Your task to perform on an android device: Search for vegetarian restaurants on Maps Image 0: 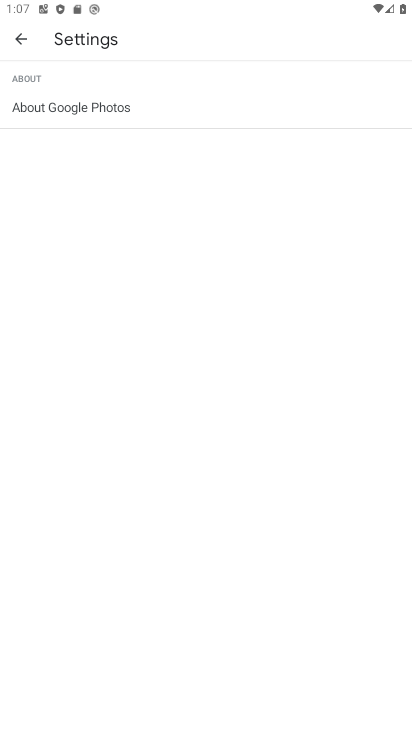
Step 0: press home button
Your task to perform on an android device: Search for vegetarian restaurants on Maps Image 1: 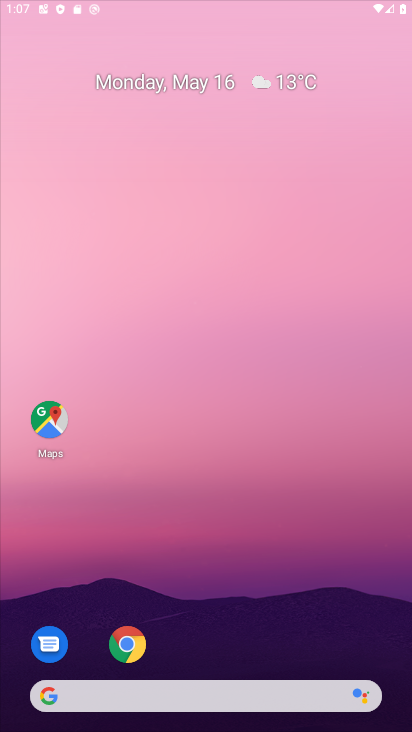
Step 1: drag from (186, 699) to (197, 196)
Your task to perform on an android device: Search for vegetarian restaurants on Maps Image 2: 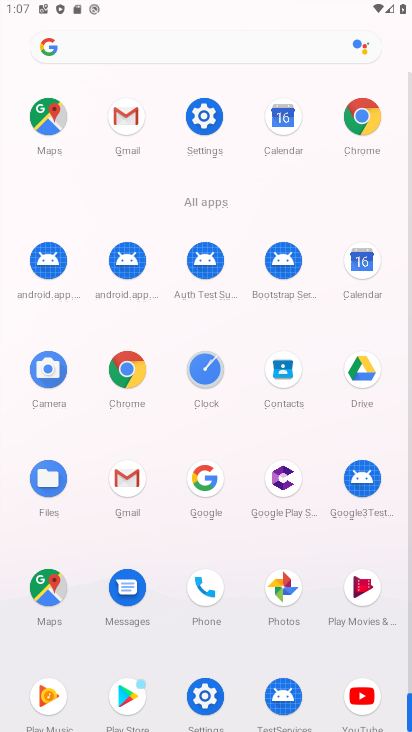
Step 2: click (48, 592)
Your task to perform on an android device: Search for vegetarian restaurants on Maps Image 3: 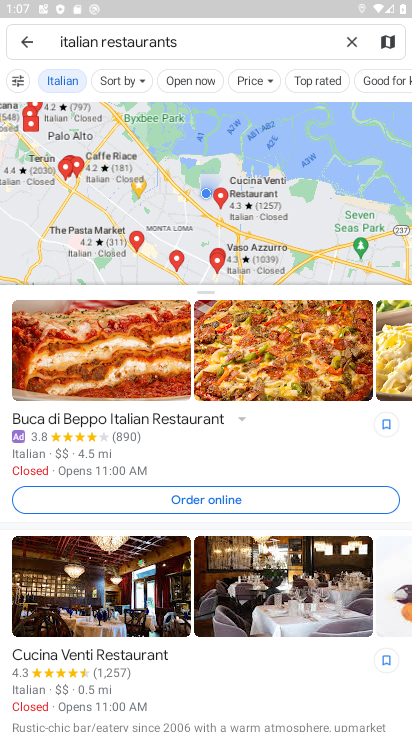
Step 3: click (352, 47)
Your task to perform on an android device: Search for vegetarian restaurants on Maps Image 4: 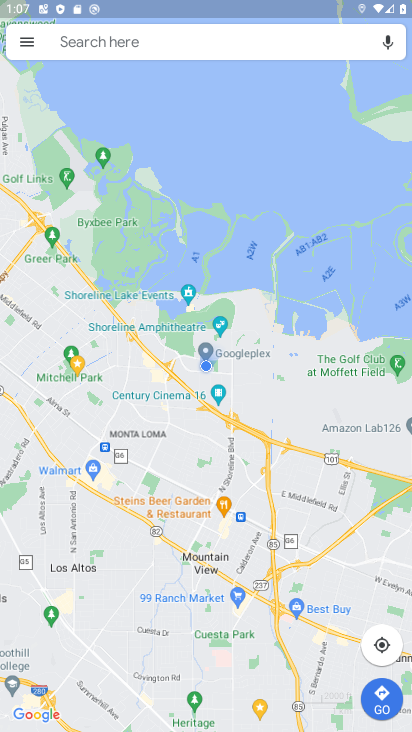
Step 4: click (190, 58)
Your task to perform on an android device: Search for vegetarian restaurants on Maps Image 5: 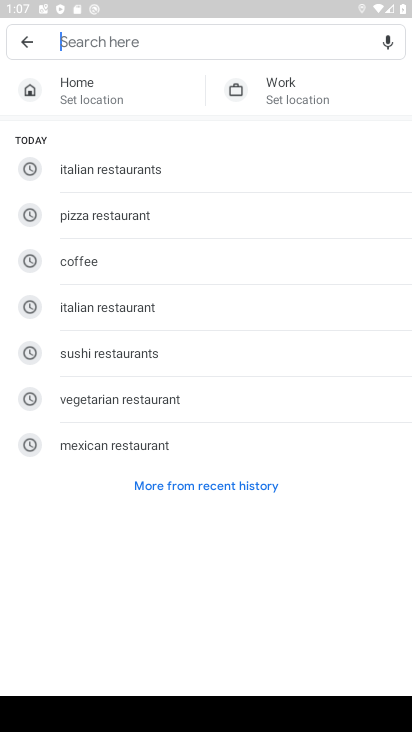
Step 5: click (162, 395)
Your task to perform on an android device: Search for vegetarian restaurants on Maps Image 6: 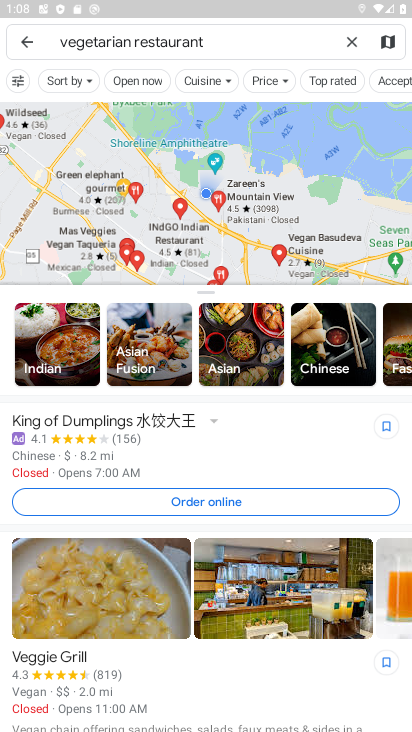
Step 6: task complete